Your task to perform on an android device: What is the recent news? Image 0: 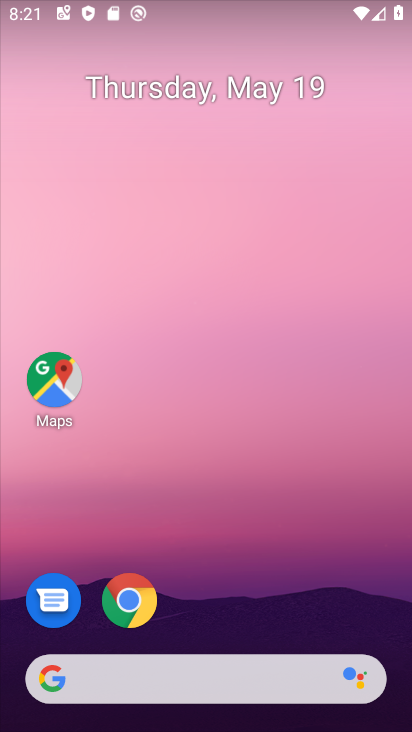
Step 0: click (106, 692)
Your task to perform on an android device: What is the recent news? Image 1: 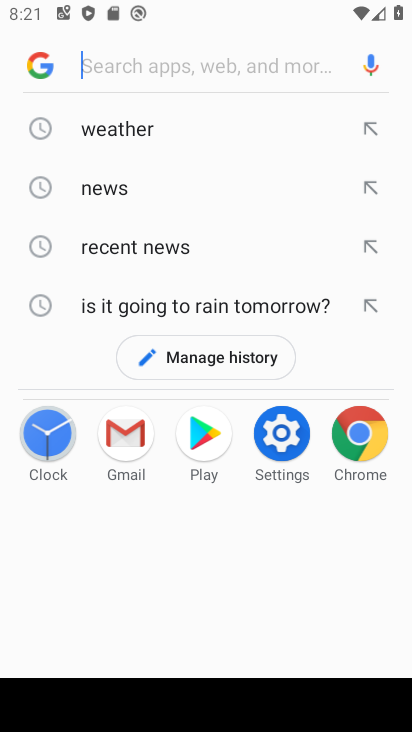
Step 1: click (135, 245)
Your task to perform on an android device: What is the recent news? Image 2: 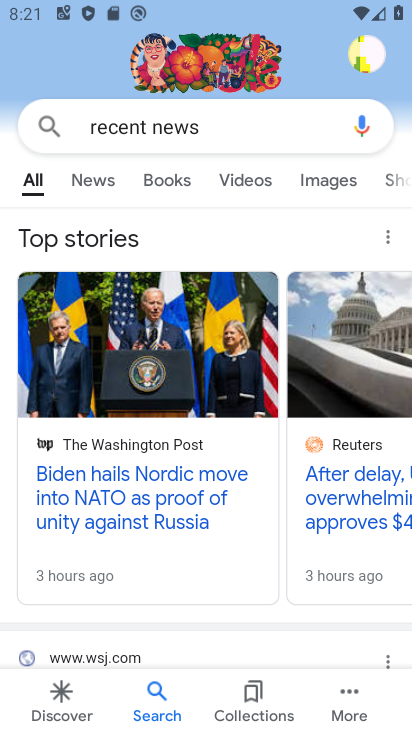
Step 2: drag from (168, 516) to (151, 238)
Your task to perform on an android device: What is the recent news? Image 3: 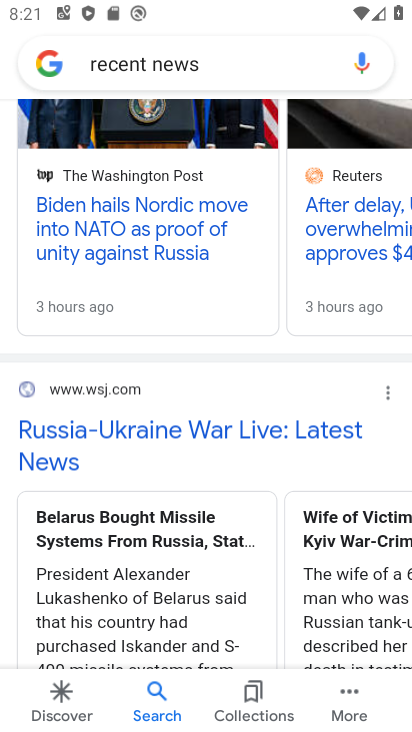
Step 3: drag from (142, 259) to (159, 521)
Your task to perform on an android device: What is the recent news? Image 4: 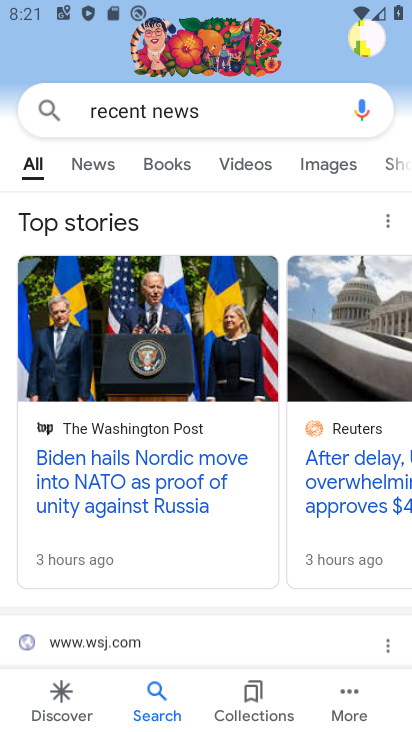
Step 4: click (107, 170)
Your task to perform on an android device: What is the recent news? Image 5: 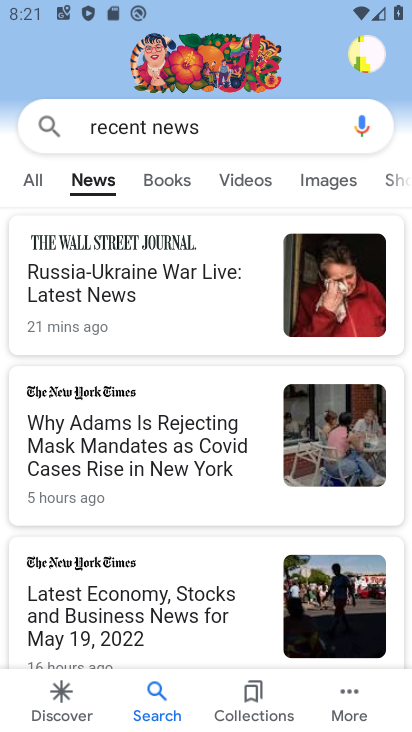
Step 5: click (106, 297)
Your task to perform on an android device: What is the recent news? Image 6: 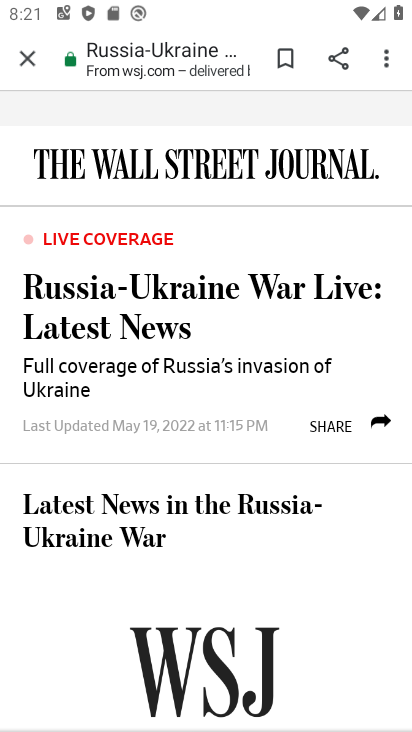
Step 6: task complete